Your task to perform on an android device: Show me recent news Image 0: 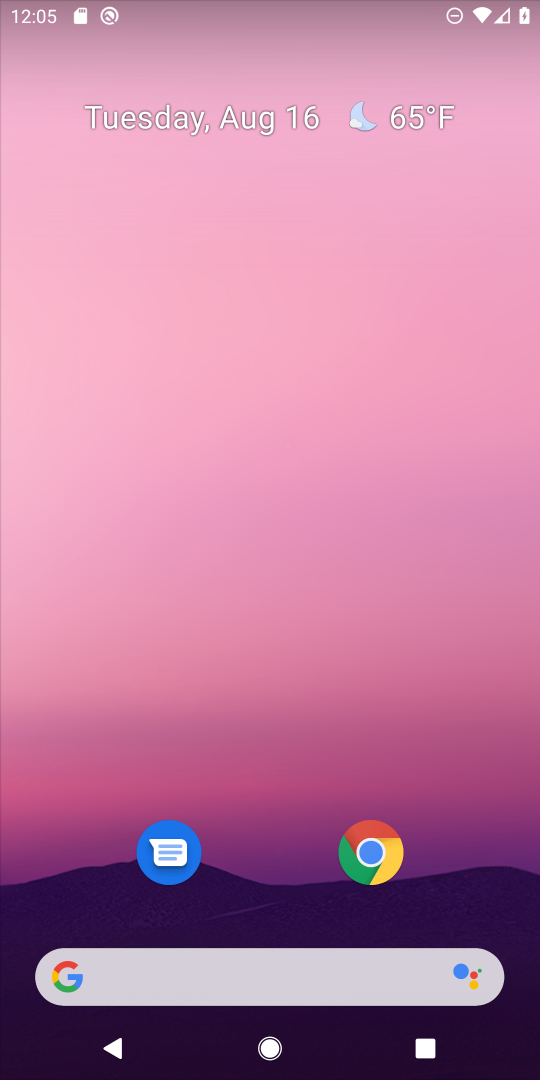
Step 0: click (202, 981)
Your task to perform on an android device: Show me recent news Image 1: 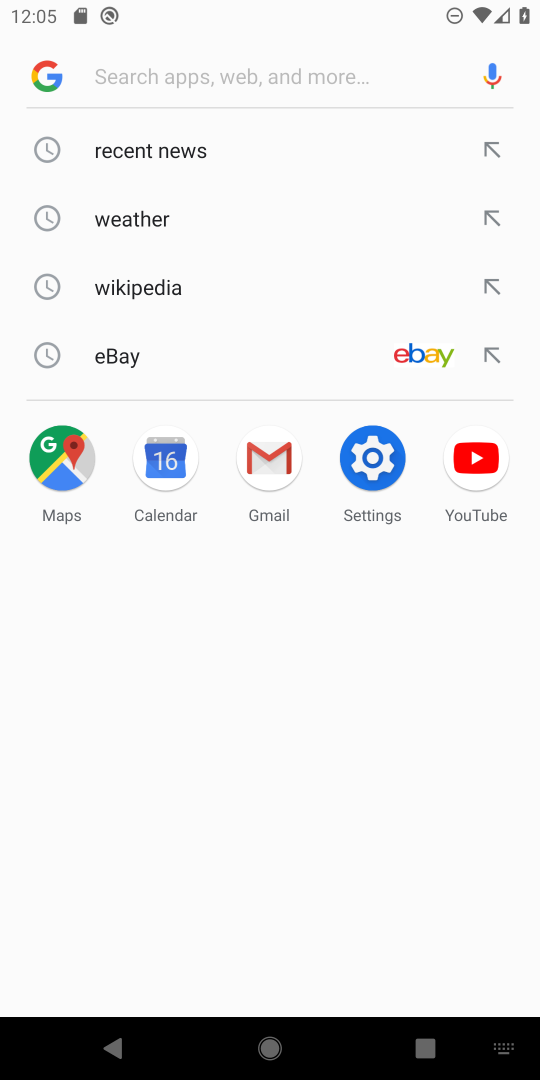
Step 1: click (163, 154)
Your task to perform on an android device: Show me recent news Image 2: 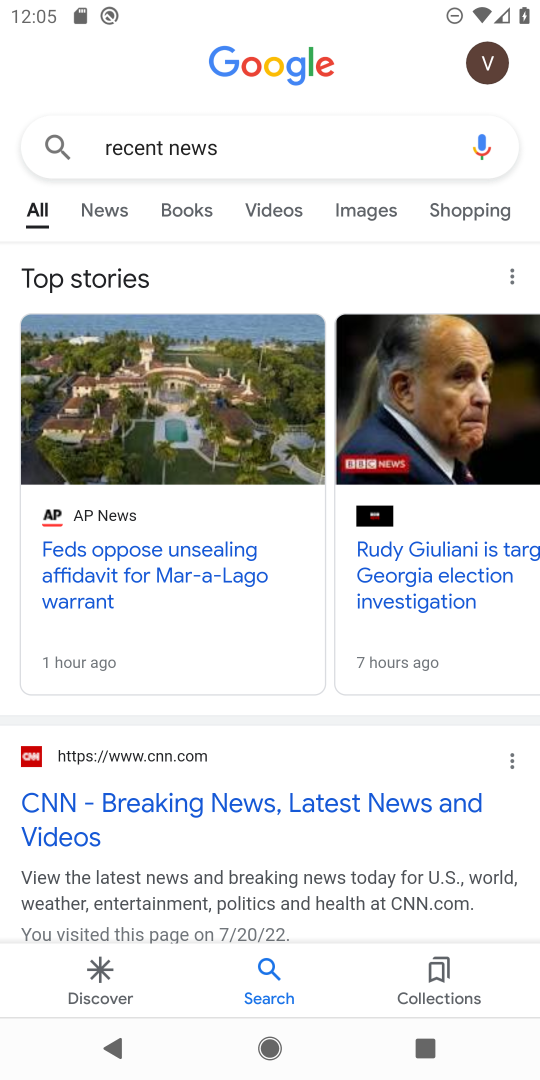
Step 2: task complete